Your task to perform on an android device: set default search engine in the chrome app Image 0: 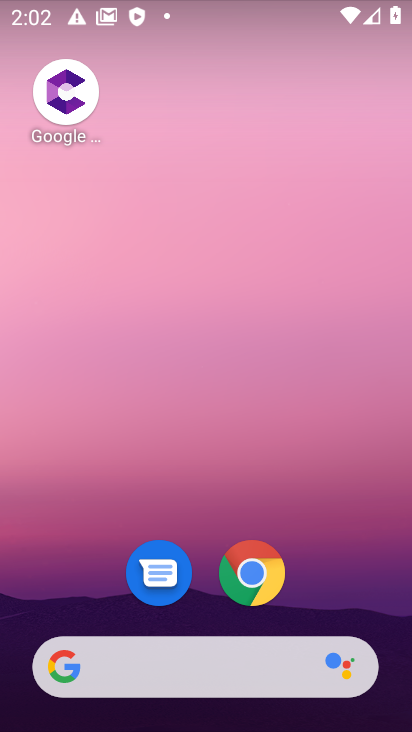
Step 0: click (262, 569)
Your task to perform on an android device: set default search engine in the chrome app Image 1: 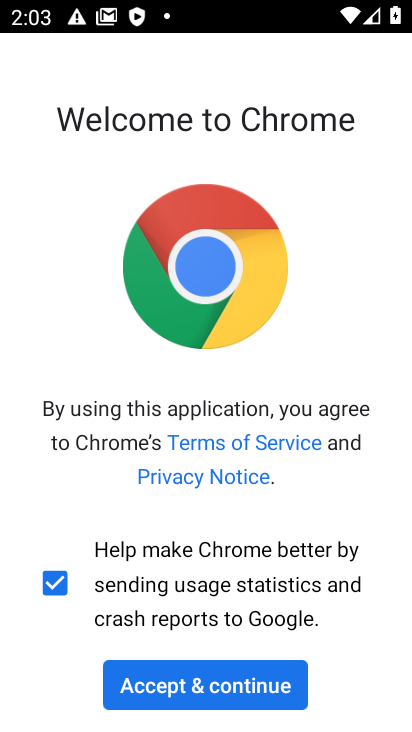
Step 1: click (257, 676)
Your task to perform on an android device: set default search engine in the chrome app Image 2: 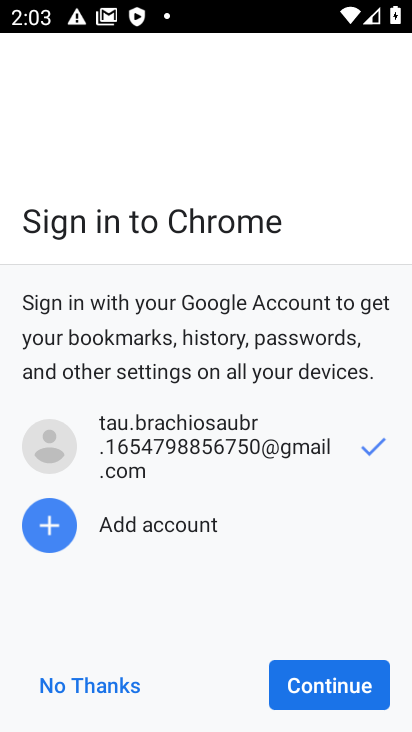
Step 2: click (315, 692)
Your task to perform on an android device: set default search engine in the chrome app Image 3: 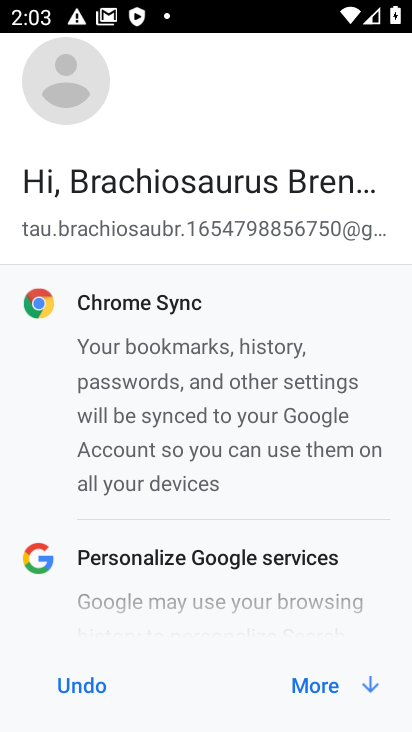
Step 3: click (326, 689)
Your task to perform on an android device: set default search engine in the chrome app Image 4: 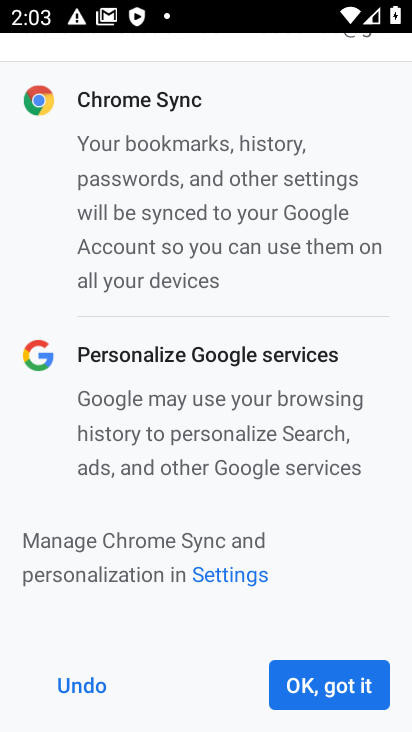
Step 4: click (326, 689)
Your task to perform on an android device: set default search engine in the chrome app Image 5: 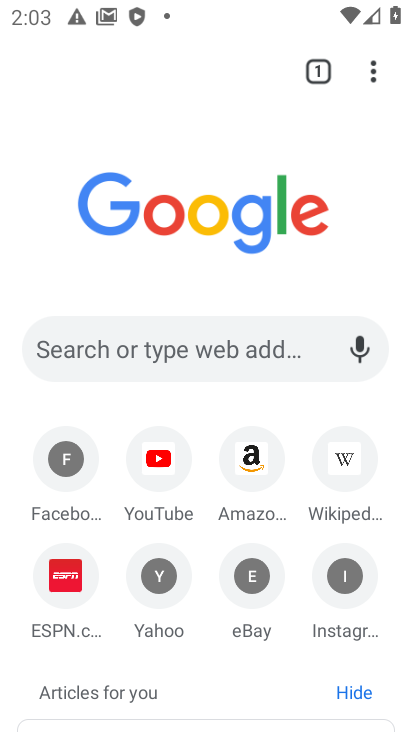
Step 5: click (370, 74)
Your task to perform on an android device: set default search engine in the chrome app Image 6: 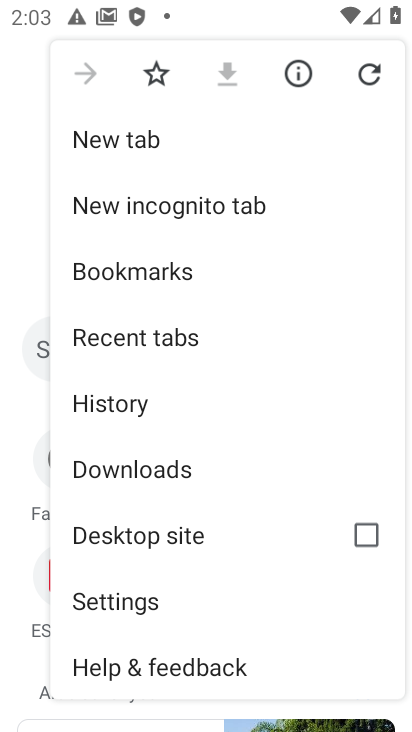
Step 6: click (217, 607)
Your task to perform on an android device: set default search engine in the chrome app Image 7: 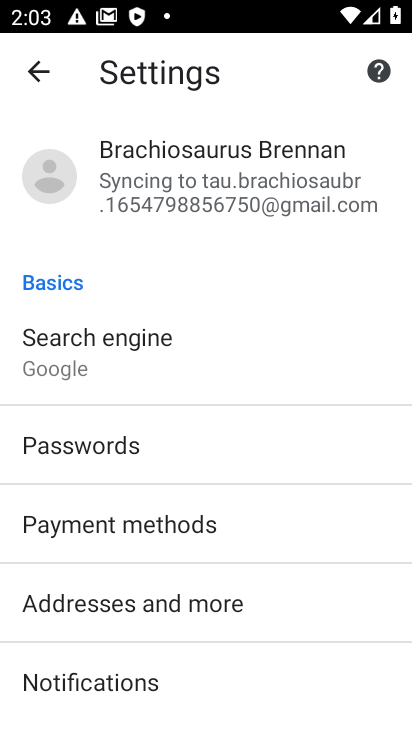
Step 7: click (177, 344)
Your task to perform on an android device: set default search engine in the chrome app Image 8: 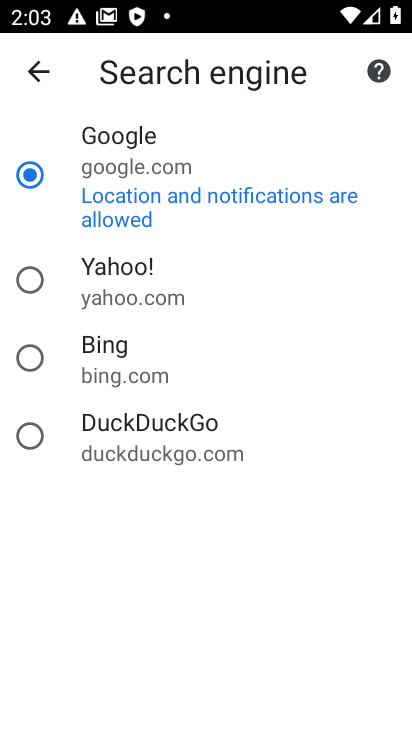
Step 8: task complete